Your task to perform on an android device: refresh tabs in the chrome app Image 0: 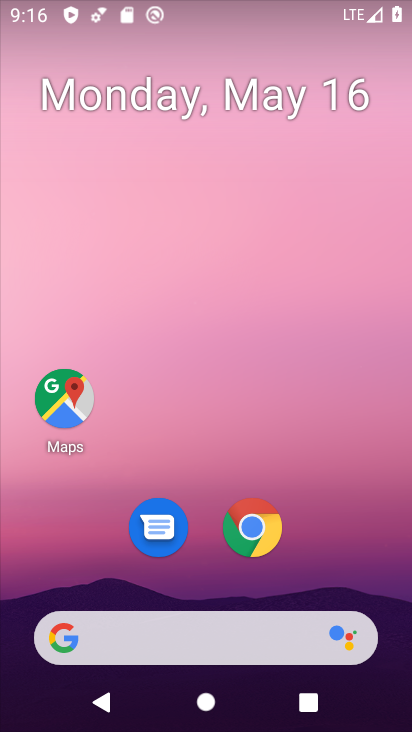
Step 0: click (265, 534)
Your task to perform on an android device: refresh tabs in the chrome app Image 1: 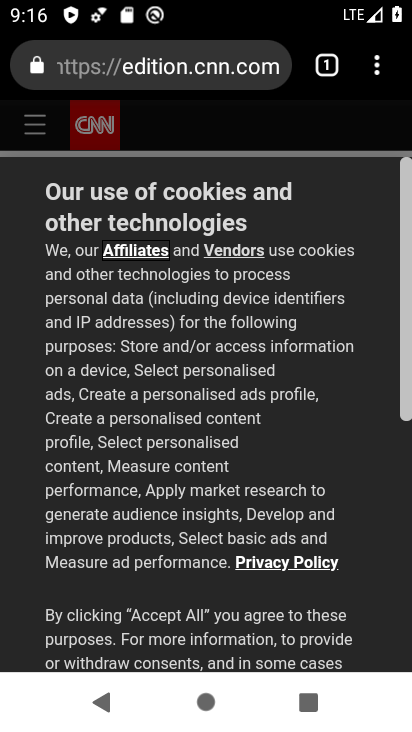
Step 1: click (381, 76)
Your task to perform on an android device: refresh tabs in the chrome app Image 2: 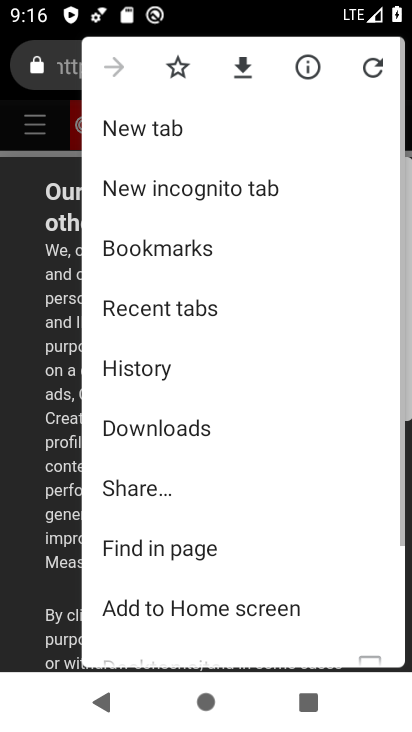
Step 2: click (380, 75)
Your task to perform on an android device: refresh tabs in the chrome app Image 3: 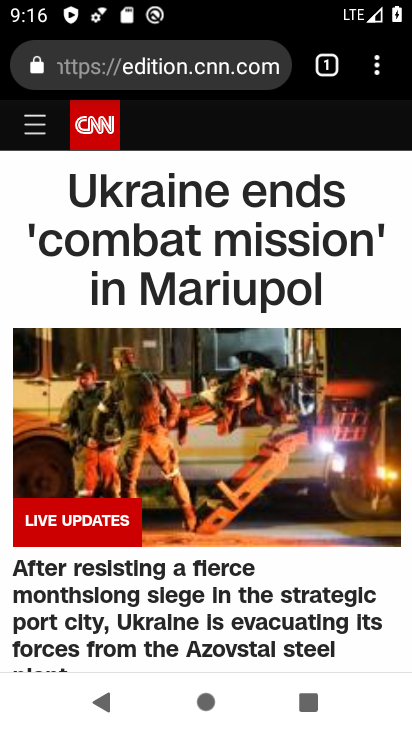
Step 3: task complete